Your task to perform on an android device: Search for the best rated phone case for the iPhone 8. Image 0: 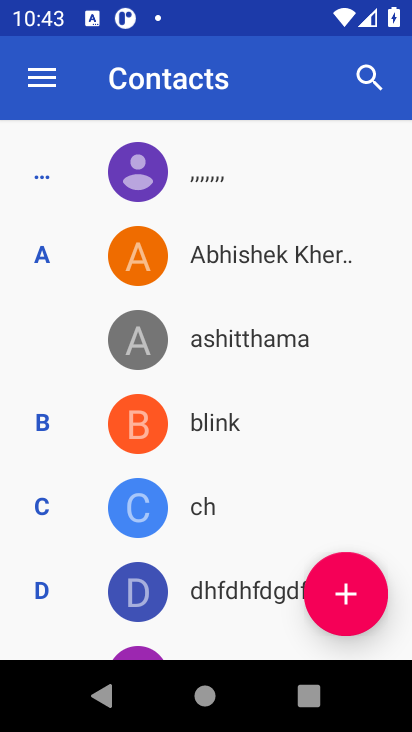
Step 0: press home button
Your task to perform on an android device: Search for the best rated phone case for the iPhone 8. Image 1: 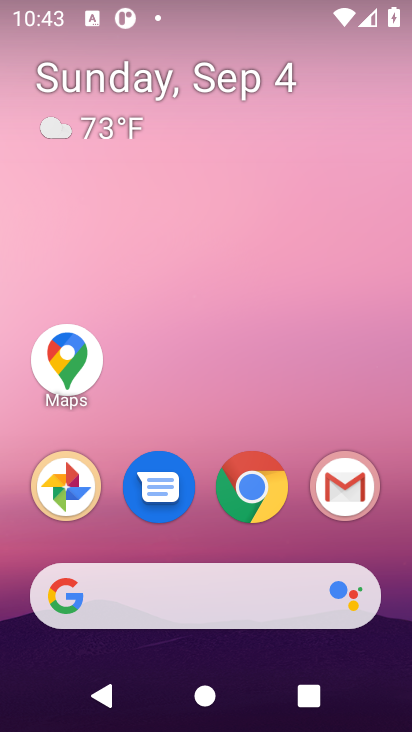
Step 1: click (129, 586)
Your task to perform on an android device: Search for the best rated phone case for the iPhone 8. Image 2: 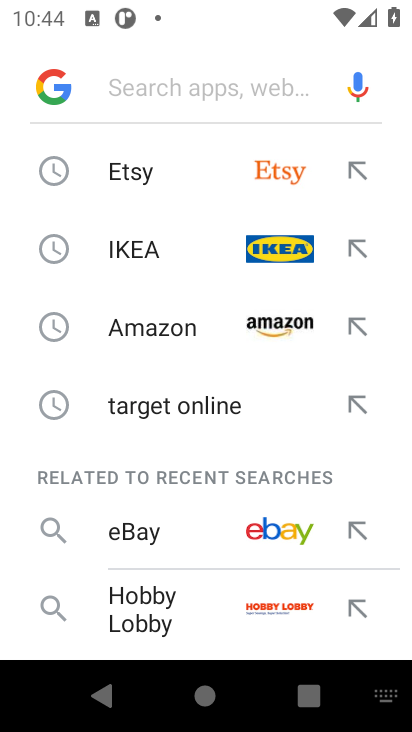
Step 2: type " best rated phone case for the iPhone 8."
Your task to perform on an android device: Search for the best rated phone case for the iPhone 8. Image 3: 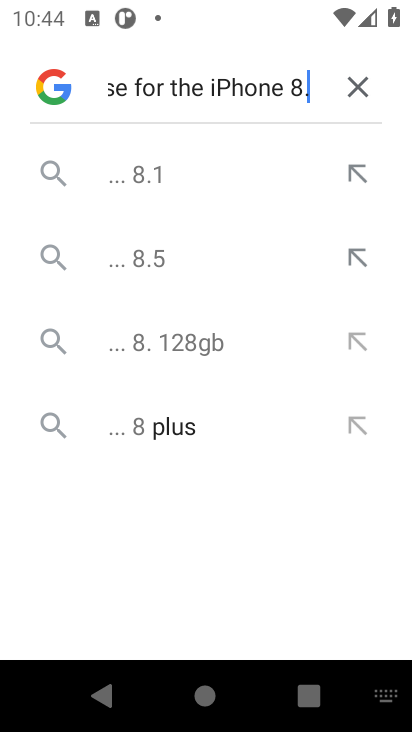
Step 3: click (308, 93)
Your task to perform on an android device: Search for the best rated phone case for the iPhone 8. Image 4: 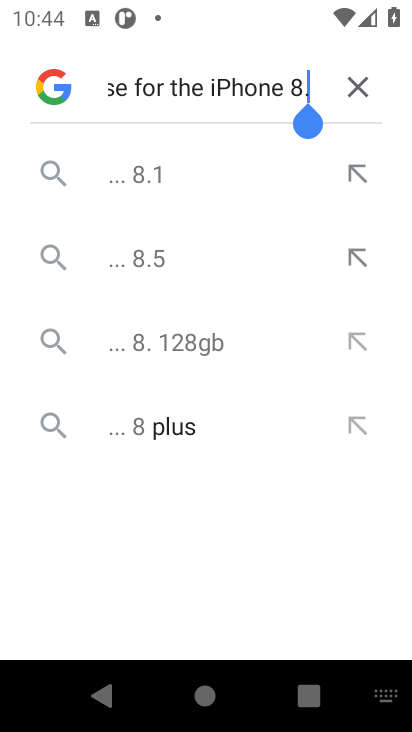
Step 4: click (357, 96)
Your task to perform on an android device: Search for the best rated phone case for the iPhone 8. Image 5: 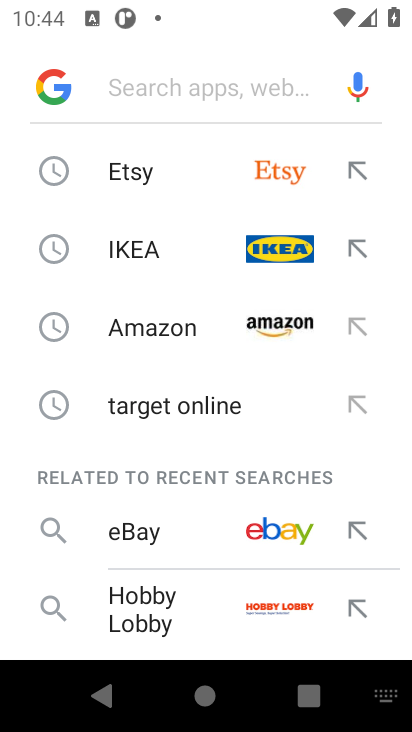
Step 5: type " best rated phone case for the iPhone 8"
Your task to perform on an android device: Search for the best rated phone case for the iPhone 8. Image 6: 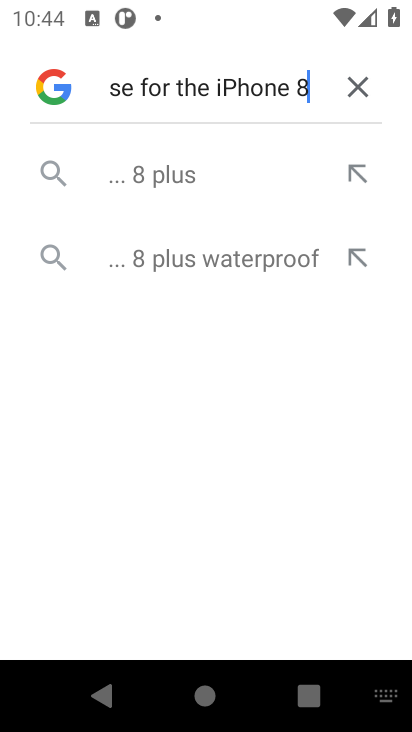
Step 6: click (246, 252)
Your task to perform on an android device: Search for the best rated phone case for the iPhone 8. Image 7: 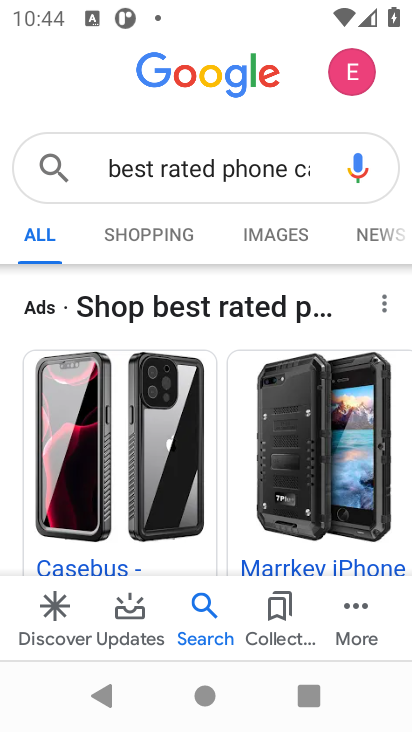
Step 7: task complete